Your task to perform on an android device: Clear the shopping cart on ebay.com. Add lg ultragear to the cart on ebay.com Image 0: 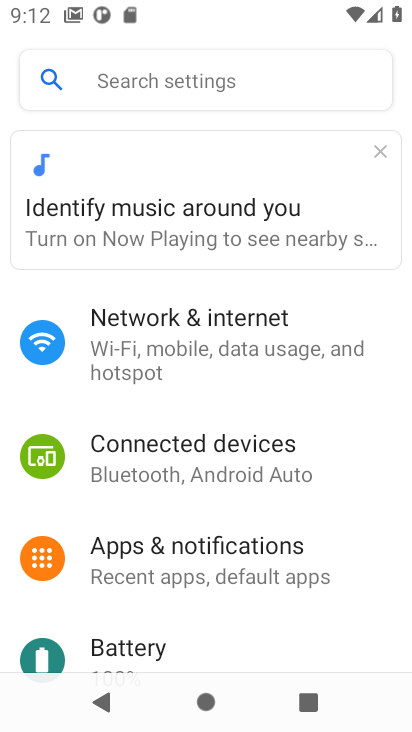
Step 0: press home button
Your task to perform on an android device: Clear the shopping cart on ebay.com. Add lg ultragear to the cart on ebay.com Image 1: 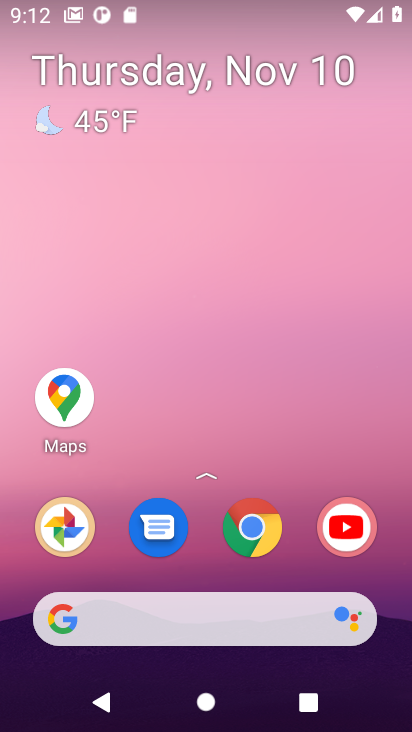
Step 1: drag from (253, 571) to (384, 6)
Your task to perform on an android device: Clear the shopping cart on ebay.com. Add lg ultragear to the cart on ebay.com Image 2: 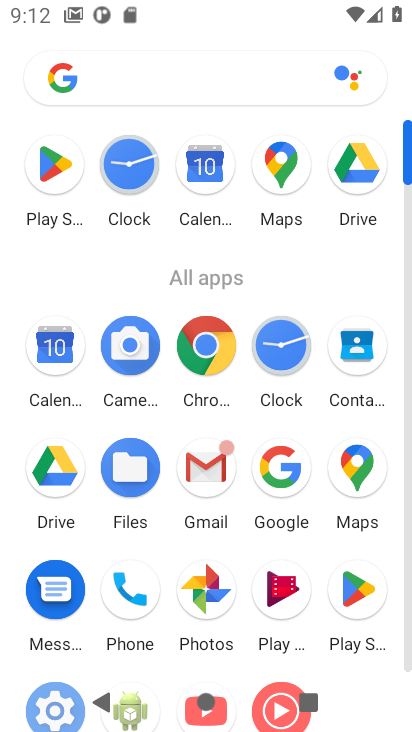
Step 2: click (197, 343)
Your task to perform on an android device: Clear the shopping cart on ebay.com. Add lg ultragear to the cart on ebay.com Image 3: 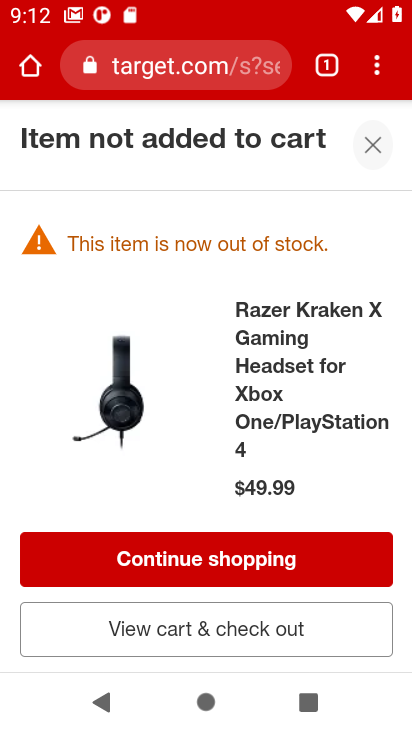
Step 3: click (152, 52)
Your task to perform on an android device: Clear the shopping cart on ebay.com. Add lg ultragear to the cart on ebay.com Image 4: 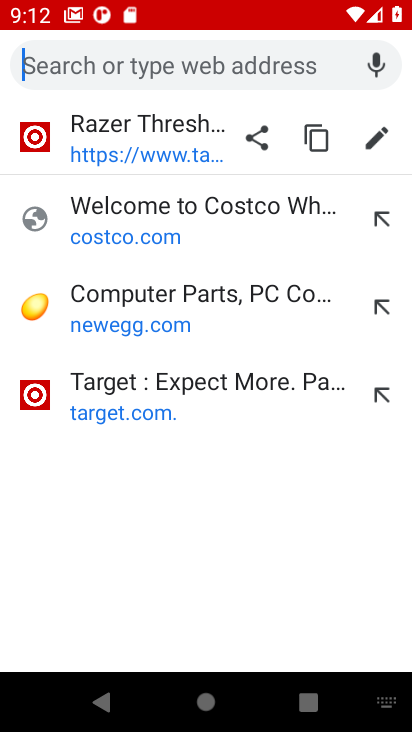
Step 4: type "ebay.com"
Your task to perform on an android device: Clear the shopping cart on ebay.com. Add lg ultragear to the cart on ebay.com Image 5: 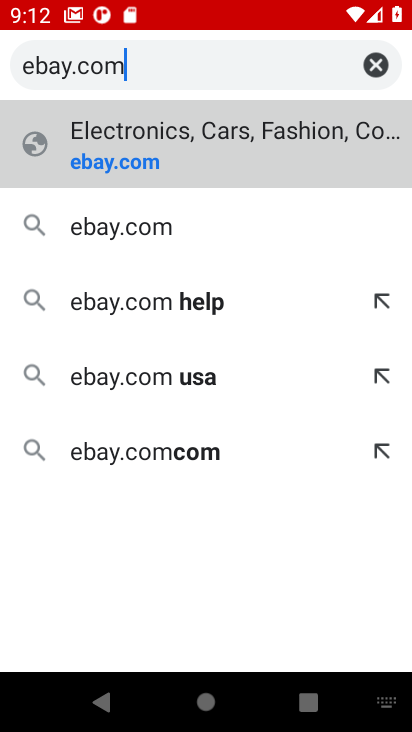
Step 5: press enter
Your task to perform on an android device: Clear the shopping cart on ebay.com. Add lg ultragear to the cart on ebay.com Image 6: 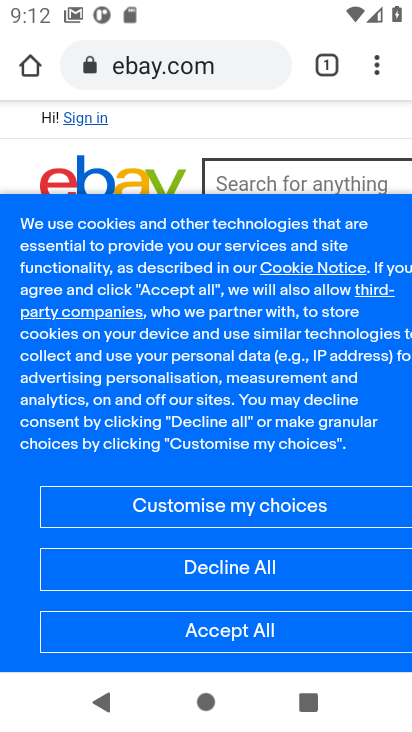
Step 6: click (186, 637)
Your task to perform on an android device: Clear the shopping cart on ebay.com. Add lg ultragear to the cart on ebay.com Image 7: 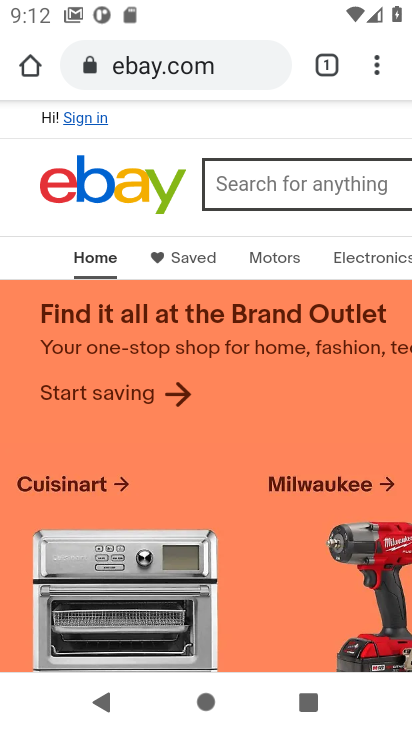
Step 7: click (278, 188)
Your task to perform on an android device: Clear the shopping cart on ebay.com. Add lg ultragear to the cart on ebay.com Image 8: 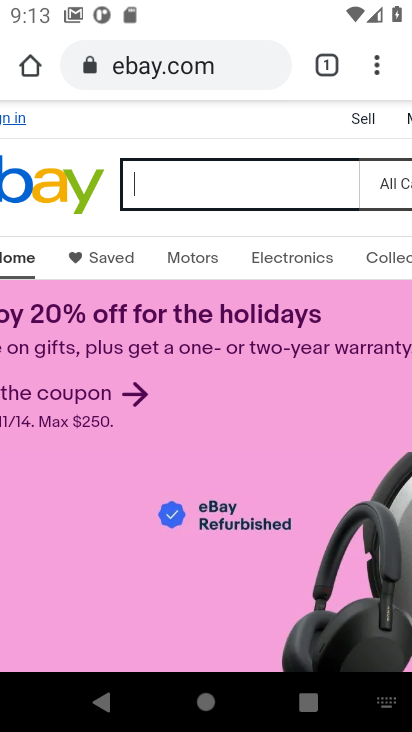
Step 8: press back button
Your task to perform on an android device: Clear the shopping cart on ebay.com. Add lg ultragear to the cart on ebay.com Image 9: 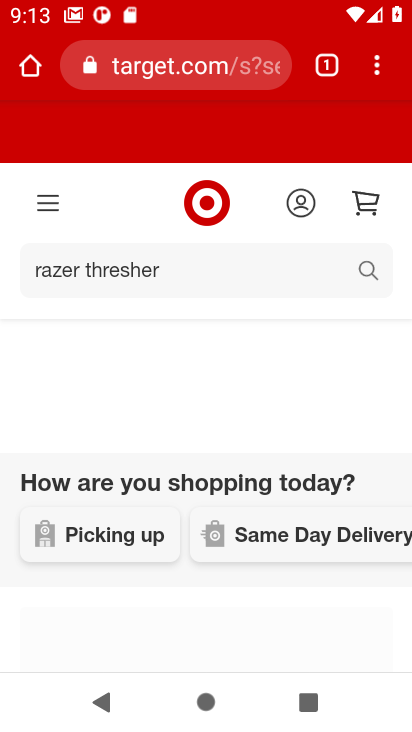
Step 9: click (233, 66)
Your task to perform on an android device: Clear the shopping cart on ebay.com. Add lg ultragear to the cart on ebay.com Image 10: 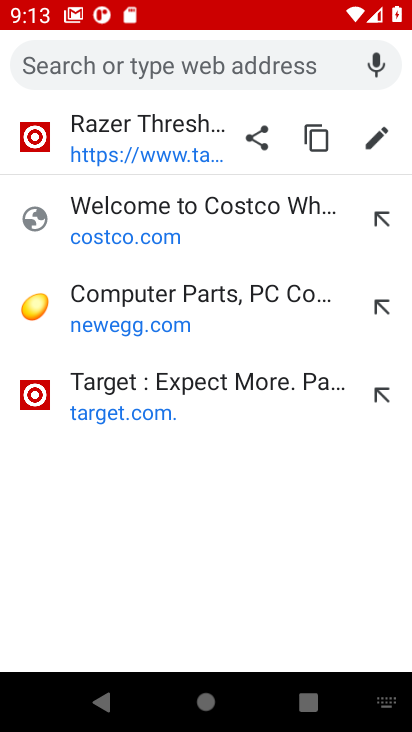
Step 10: type "ebay.com"
Your task to perform on an android device: Clear the shopping cart on ebay.com. Add lg ultragear to the cart on ebay.com Image 11: 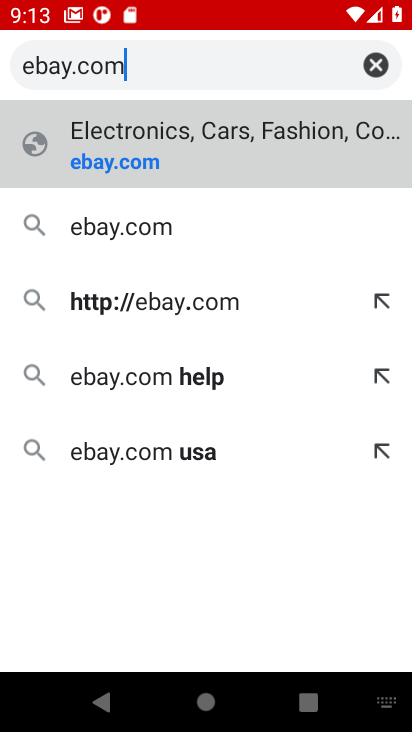
Step 11: press enter
Your task to perform on an android device: Clear the shopping cart on ebay.com. Add lg ultragear to the cart on ebay.com Image 12: 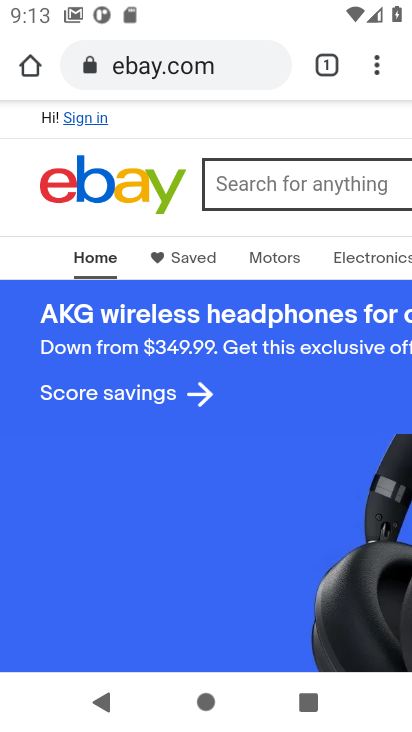
Step 12: drag from (374, 259) to (123, 238)
Your task to perform on an android device: Clear the shopping cart on ebay.com. Add lg ultragear to the cart on ebay.com Image 13: 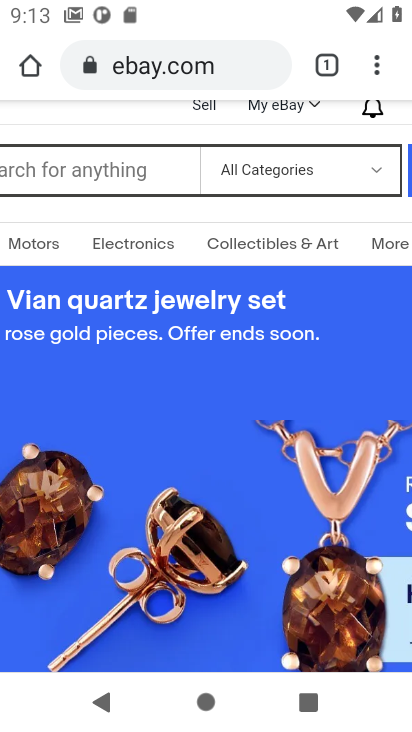
Step 13: drag from (326, 130) to (265, 402)
Your task to perform on an android device: Clear the shopping cart on ebay.com. Add lg ultragear to the cart on ebay.com Image 14: 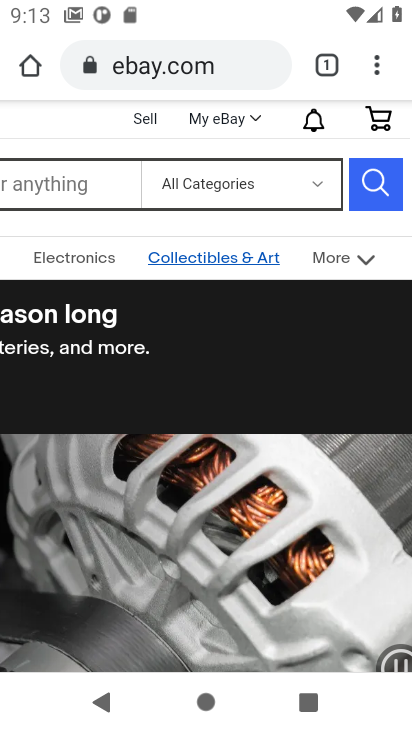
Step 14: click (385, 126)
Your task to perform on an android device: Clear the shopping cart on ebay.com. Add lg ultragear to the cart on ebay.com Image 15: 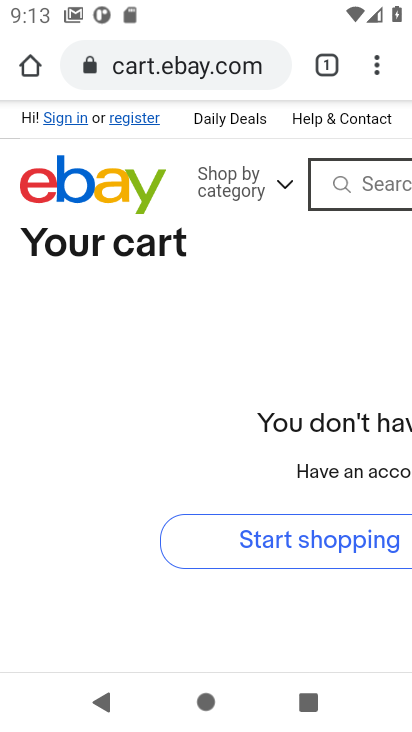
Step 15: click (332, 189)
Your task to perform on an android device: Clear the shopping cart on ebay.com. Add lg ultragear to the cart on ebay.com Image 16: 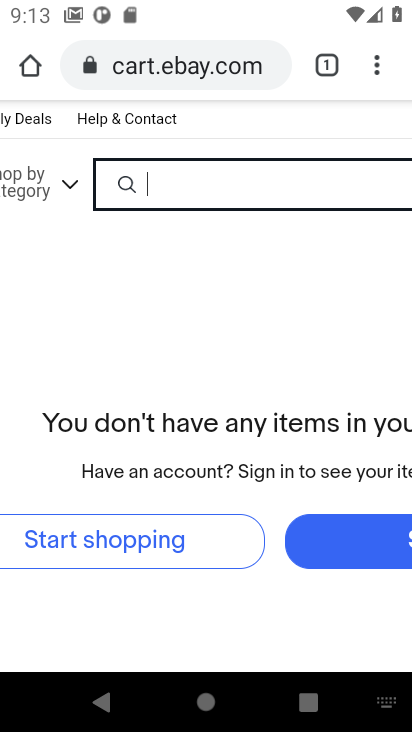
Step 16: type "lg ultragear "
Your task to perform on an android device: Clear the shopping cart on ebay.com. Add lg ultragear to the cart on ebay.com Image 17: 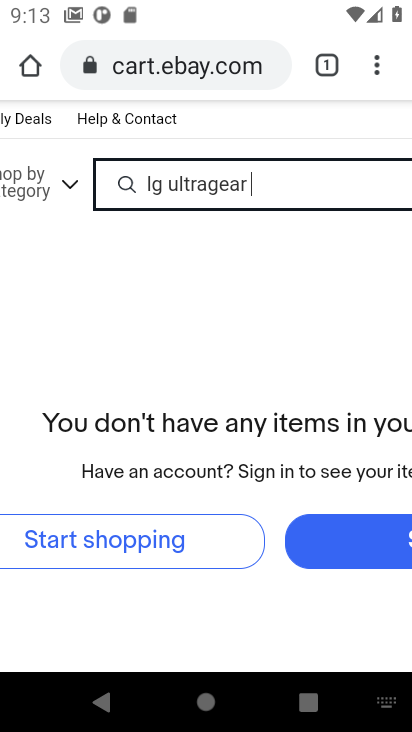
Step 17: press enter
Your task to perform on an android device: Clear the shopping cart on ebay.com. Add lg ultragear to the cart on ebay.com Image 18: 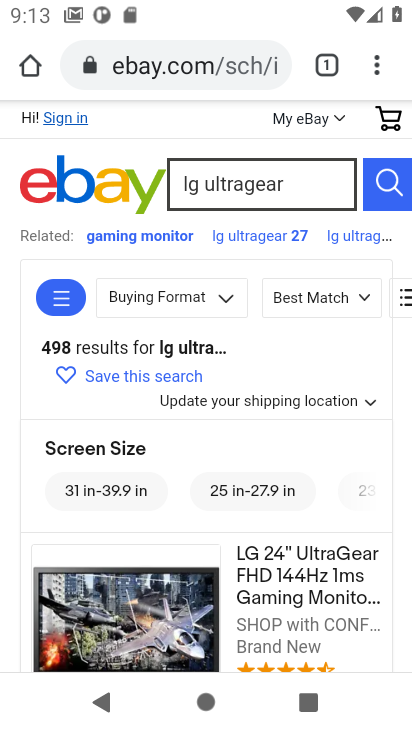
Step 18: click (260, 571)
Your task to perform on an android device: Clear the shopping cart on ebay.com. Add lg ultragear to the cart on ebay.com Image 19: 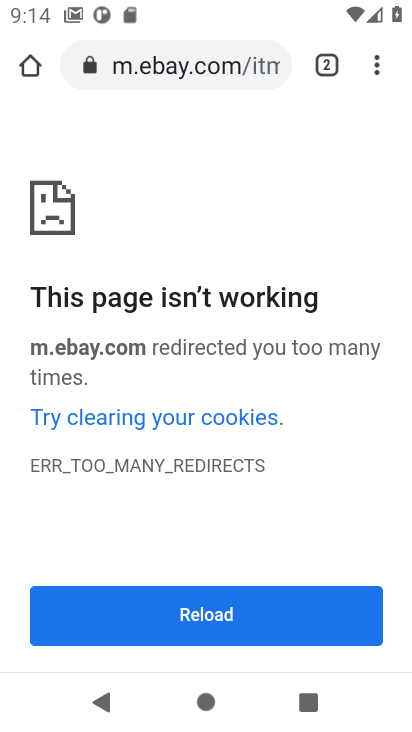
Step 19: click (194, 640)
Your task to perform on an android device: Clear the shopping cart on ebay.com. Add lg ultragear to the cart on ebay.com Image 20: 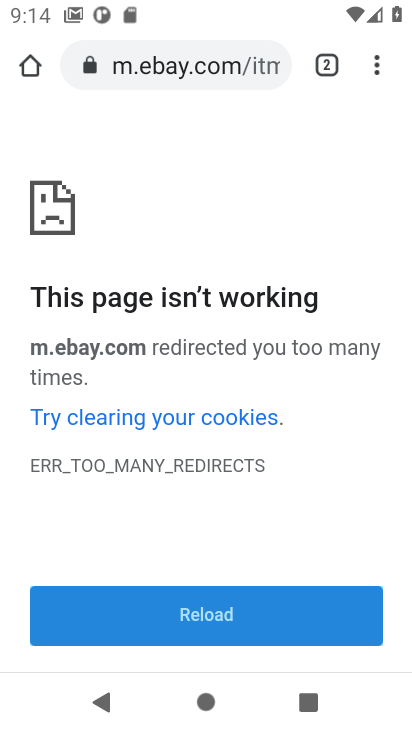
Step 20: click (214, 611)
Your task to perform on an android device: Clear the shopping cart on ebay.com. Add lg ultragear to the cart on ebay.com Image 21: 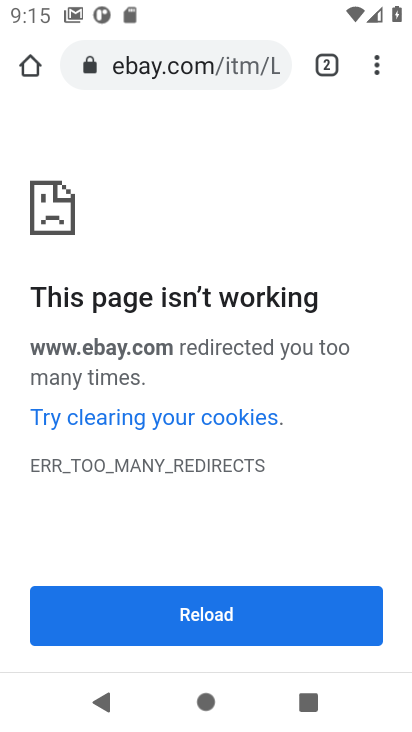
Step 21: task complete